Your task to perform on an android device: What's on my calendar tomorrow? Image 0: 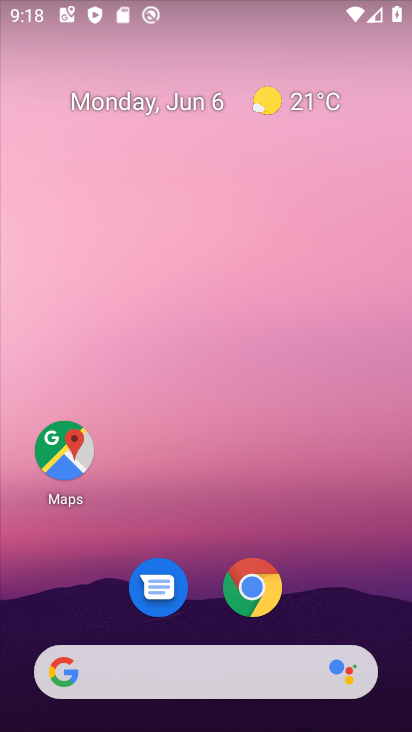
Step 0: drag from (188, 649) to (241, 122)
Your task to perform on an android device: What's on my calendar tomorrow? Image 1: 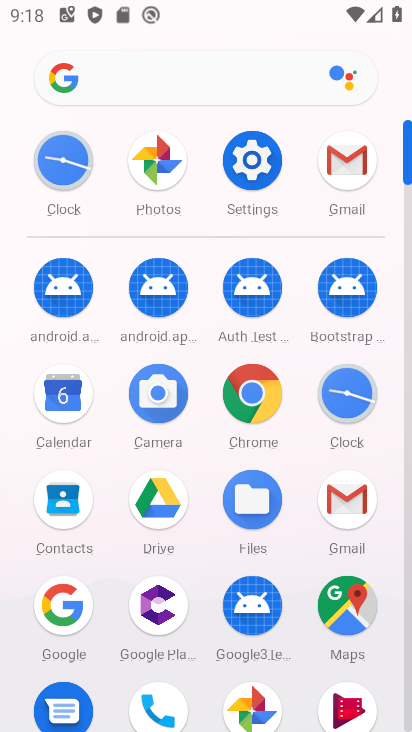
Step 1: click (68, 407)
Your task to perform on an android device: What's on my calendar tomorrow? Image 2: 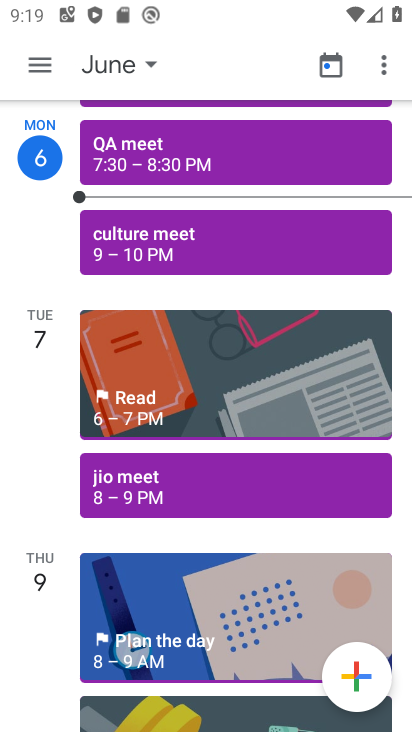
Step 2: click (118, 55)
Your task to perform on an android device: What's on my calendar tomorrow? Image 3: 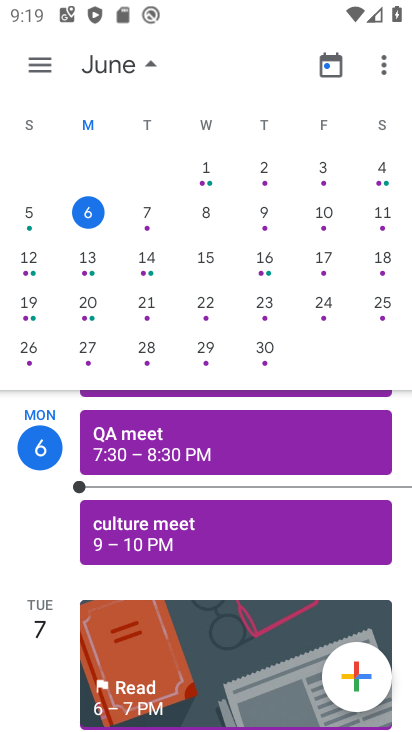
Step 3: click (149, 216)
Your task to perform on an android device: What's on my calendar tomorrow? Image 4: 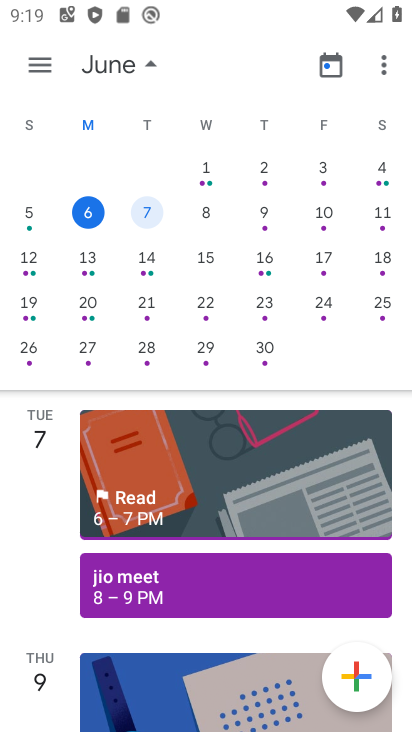
Step 4: task complete